Your task to perform on an android device: Go to wifi settings Image 0: 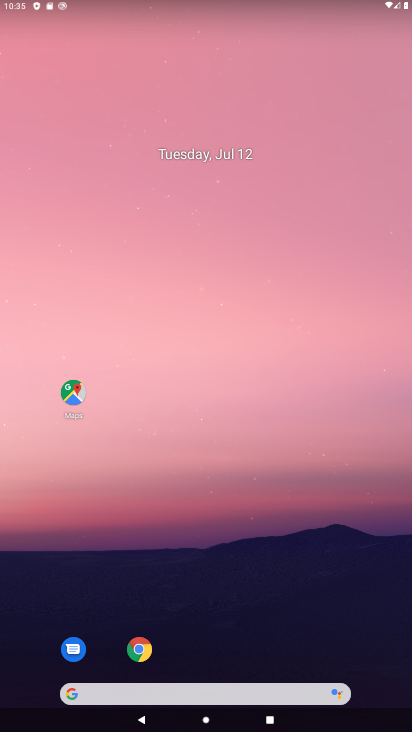
Step 0: drag from (261, 644) to (275, 45)
Your task to perform on an android device: Go to wifi settings Image 1: 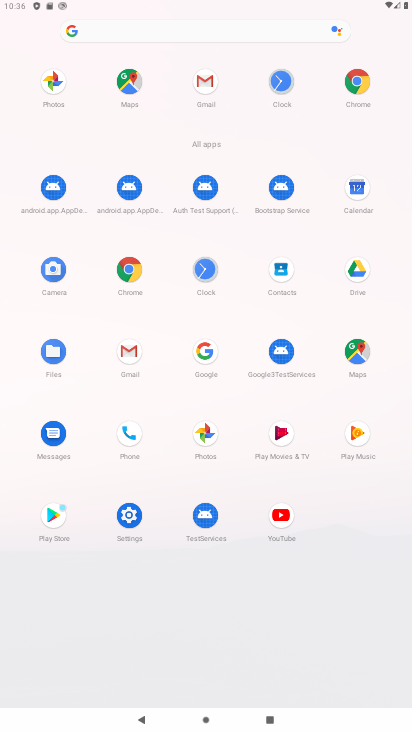
Step 1: drag from (61, 290) to (412, 376)
Your task to perform on an android device: Go to wifi settings Image 2: 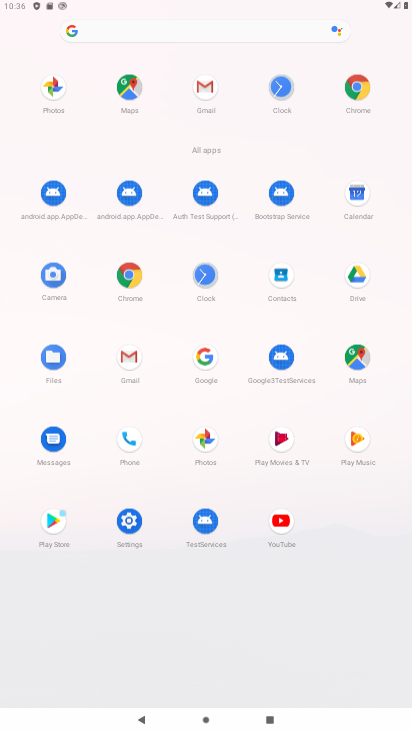
Step 2: drag from (376, 365) to (1, 336)
Your task to perform on an android device: Go to wifi settings Image 3: 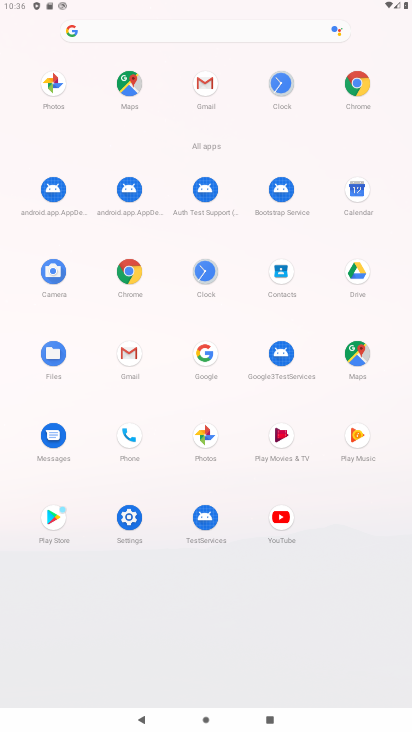
Step 3: drag from (147, 364) to (210, 112)
Your task to perform on an android device: Go to wifi settings Image 4: 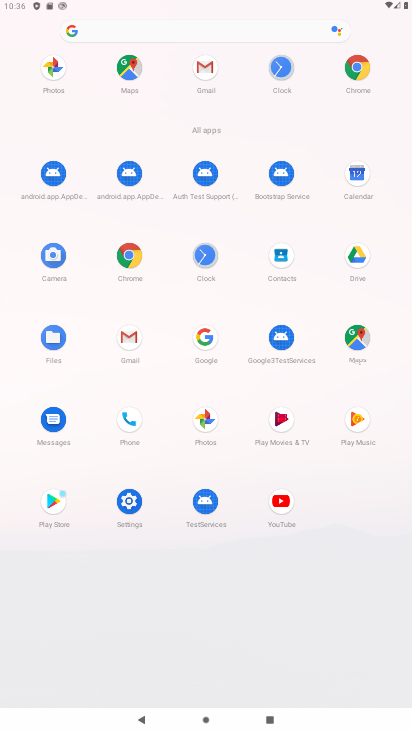
Step 4: drag from (227, 152) to (262, 385)
Your task to perform on an android device: Go to wifi settings Image 5: 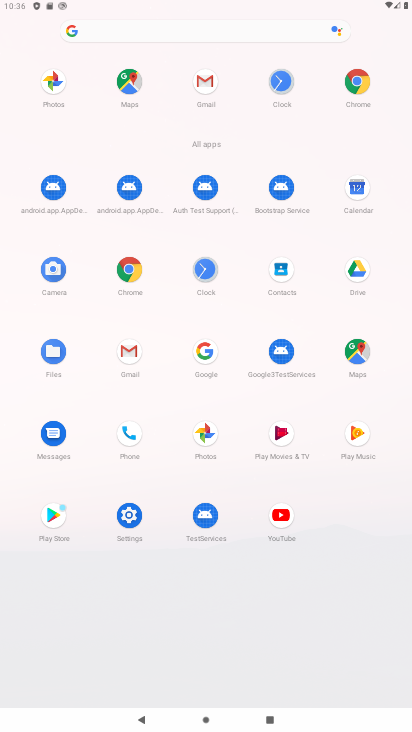
Step 5: drag from (119, 507) to (158, 251)
Your task to perform on an android device: Go to wifi settings Image 6: 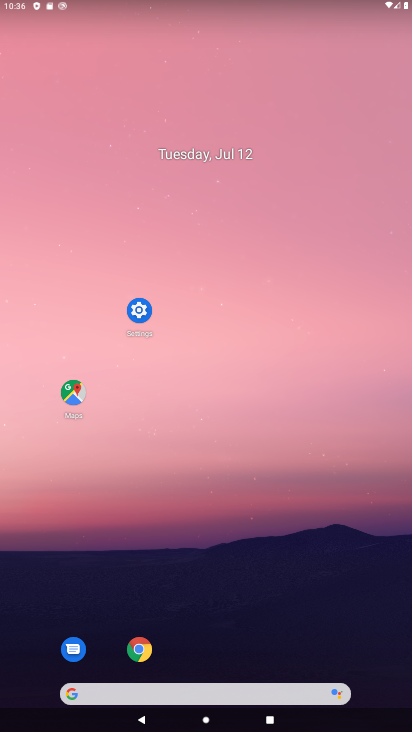
Step 6: click (136, 306)
Your task to perform on an android device: Go to wifi settings Image 7: 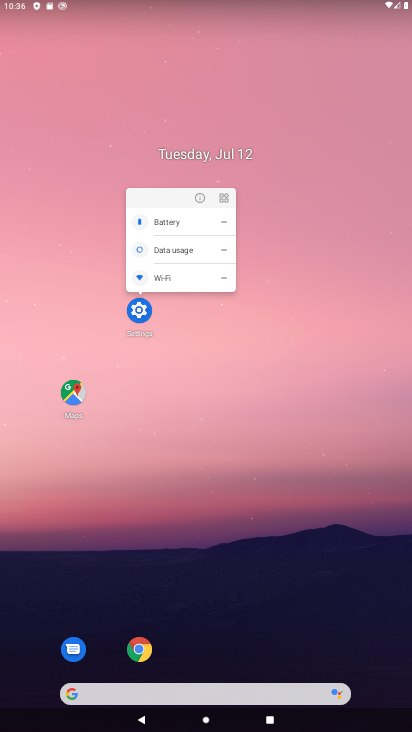
Step 7: click (181, 275)
Your task to perform on an android device: Go to wifi settings Image 8: 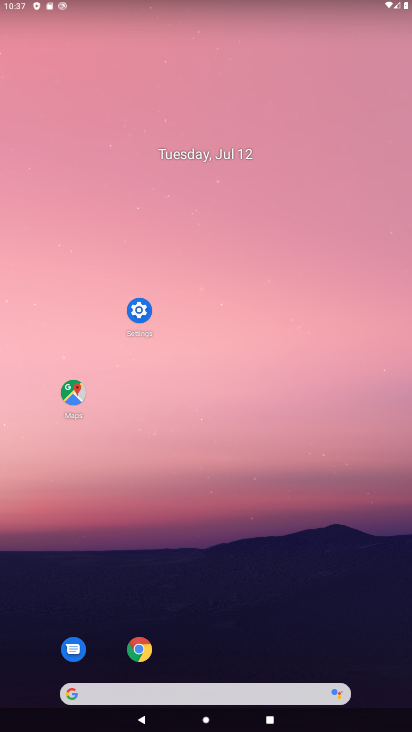
Step 8: click (140, 309)
Your task to perform on an android device: Go to wifi settings Image 9: 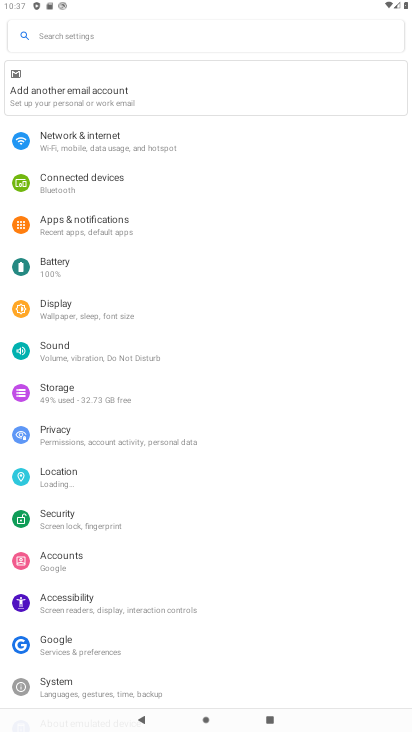
Step 9: click (132, 153)
Your task to perform on an android device: Go to wifi settings Image 10: 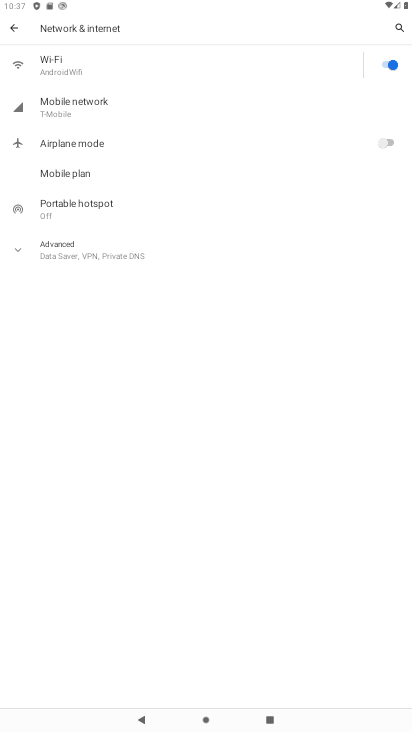
Step 10: click (73, 66)
Your task to perform on an android device: Go to wifi settings Image 11: 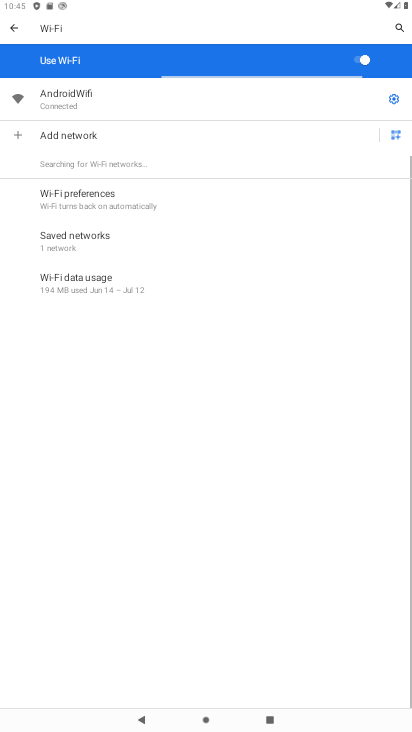
Step 11: task complete